Your task to perform on an android device: turn pop-ups on in chrome Image 0: 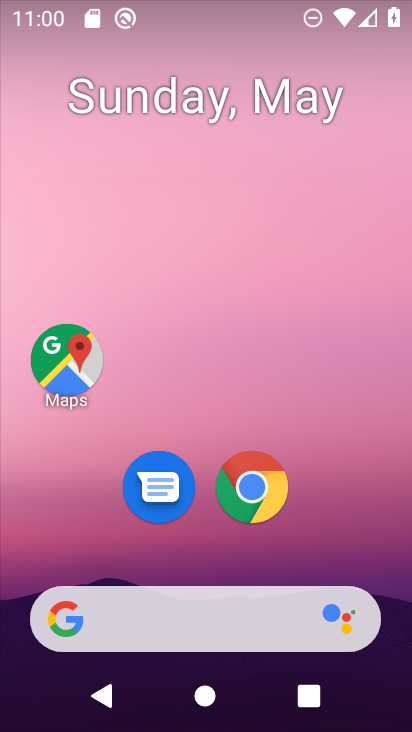
Step 0: click (275, 484)
Your task to perform on an android device: turn pop-ups on in chrome Image 1: 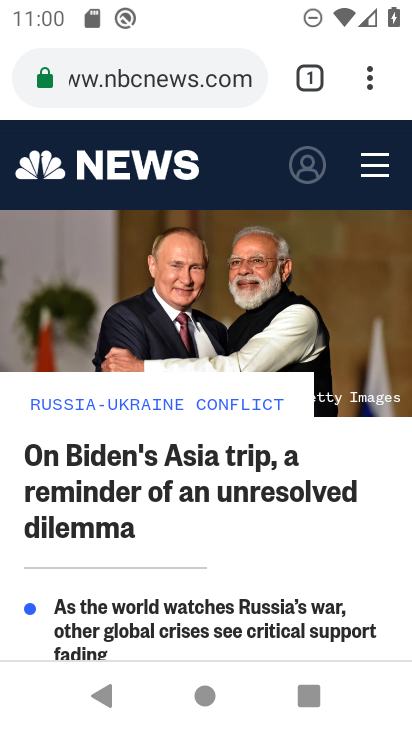
Step 1: click (365, 92)
Your task to perform on an android device: turn pop-ups on in chrome Image 2: 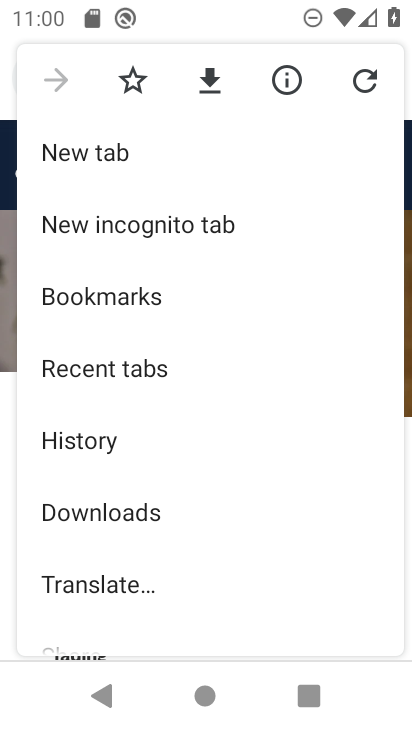
Step 2: drag from (254, 626) to (229, 240)
Your task to perform on an android device: turn pop-ups on in chrome Image 3: 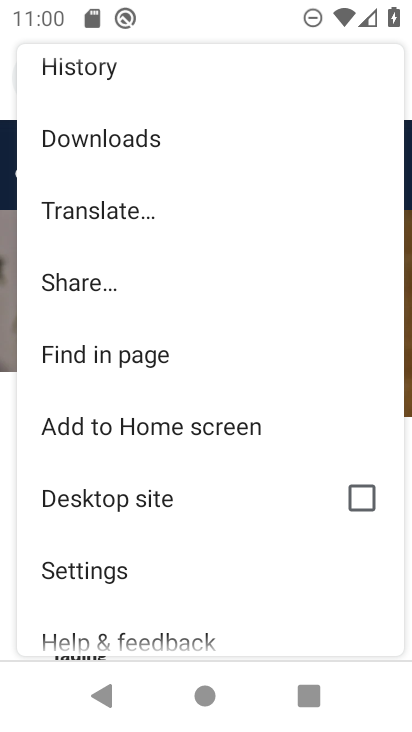
Step 3: drag from (227, 572) to (188, 271)
Your task to perform on an android device: turn pop-ups on in chrome Image 4: 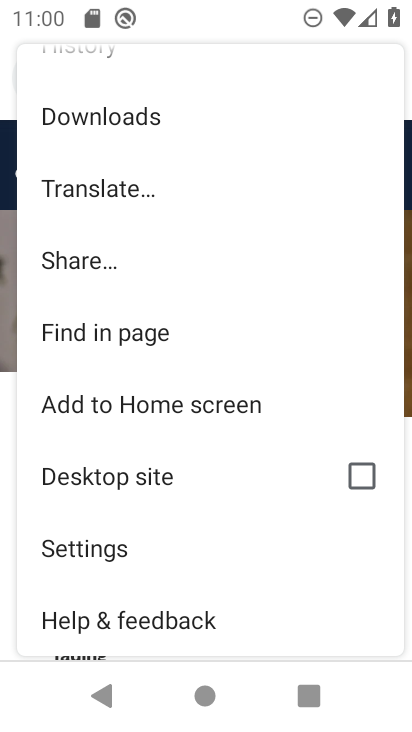
Step 4: click (167, 537)
Your task to perform on an android device: turn pop-ups on in chrome Image 5: 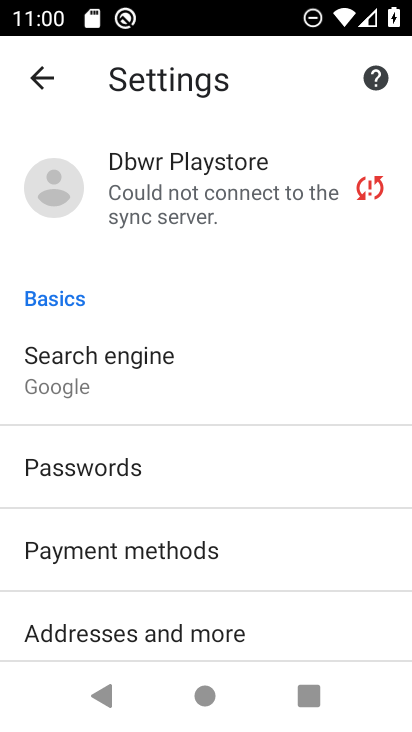
Step 5: drag from (214, 608) to (184, 167)
Your task to perform on an android device: turn pop-ups on in chrome Image 6: 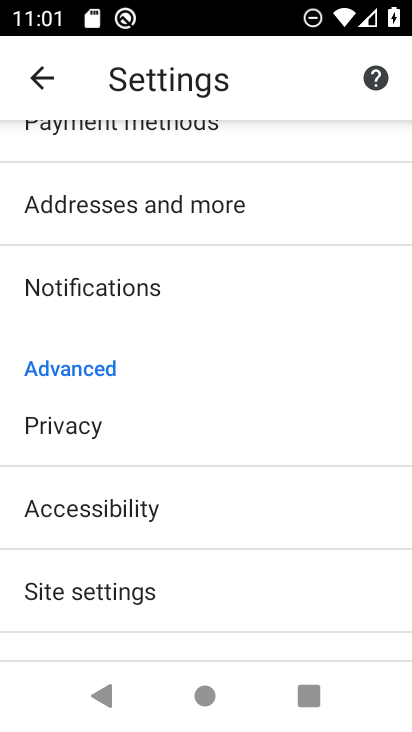
Step 6: click (225, 594)
Your task to perform on an android device: turn pop-ups on in chrome Image 7: 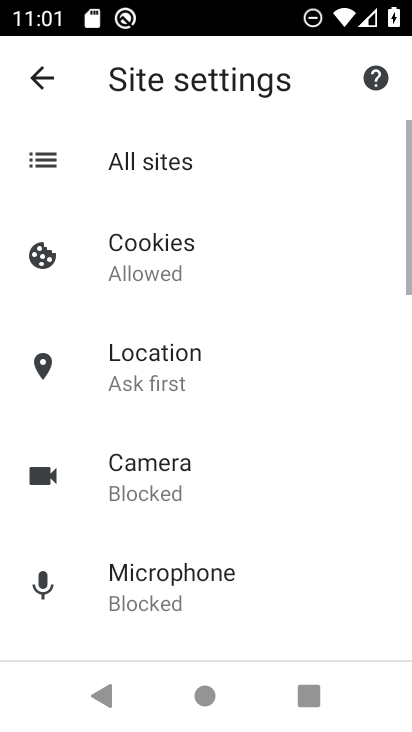
Step 7: drag from (225, 594) to (190, 118)
Your task to perform on an android device: turn pop-ups on in chrome Image 8: 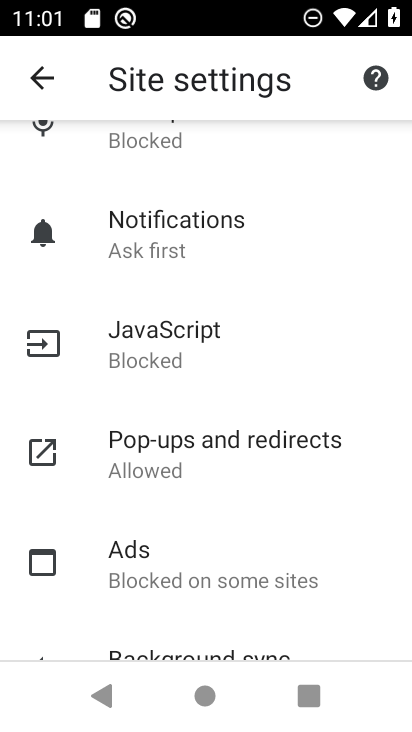
Step 8: click (252, 446)
Your task to perform on an android device: turn pop-ups on in chrome Image 9: 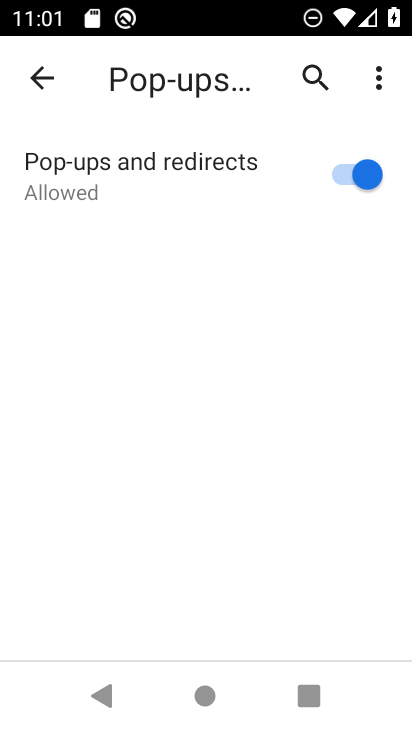
Step 9: task complete